Your task to perform on an android device: Open battery settings Image 0: 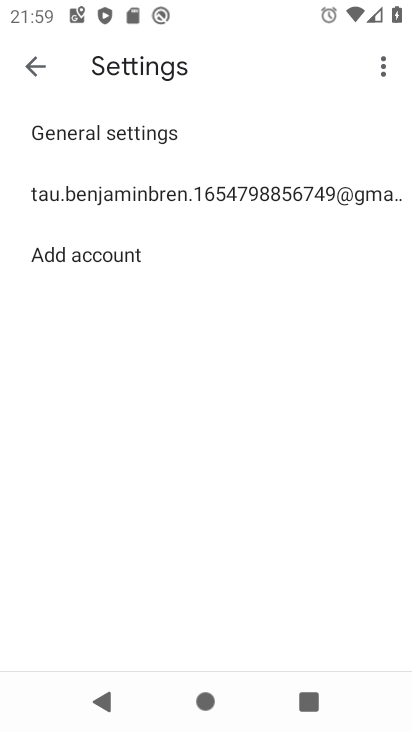
Step 0: press home button
Your task to perform on an android device: Open battery settings Image 1: 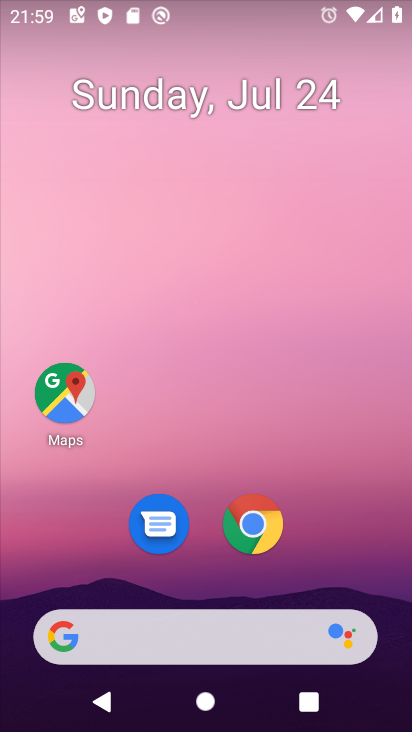
Step 1: drag from (217, 615) to (324, 114)
Your task to perform on an android device: Open battery settings Image 2: 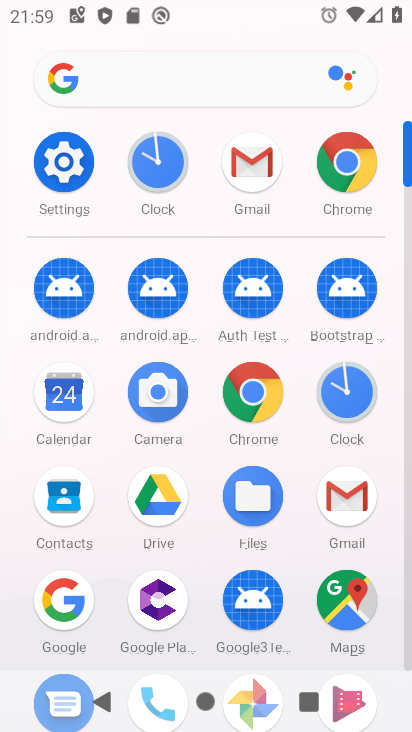
Step 2: click (72, 164)
Your task to perform on an android device: Open battery settings Image 3: 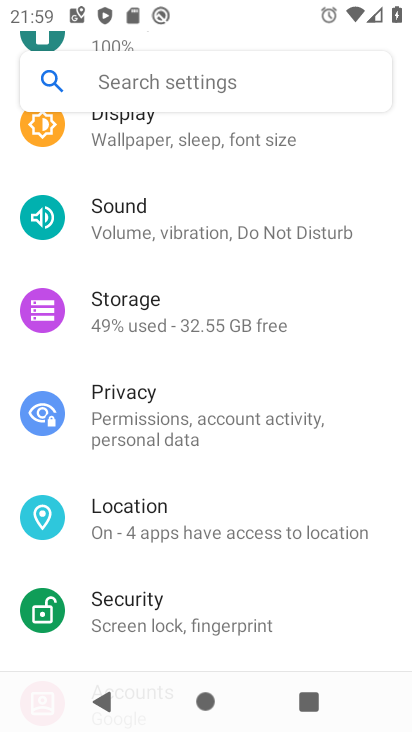
Step 3: drag from (285, 186) to (254, 610)
Your task to perform on an android device: Open battery settings Image 4: 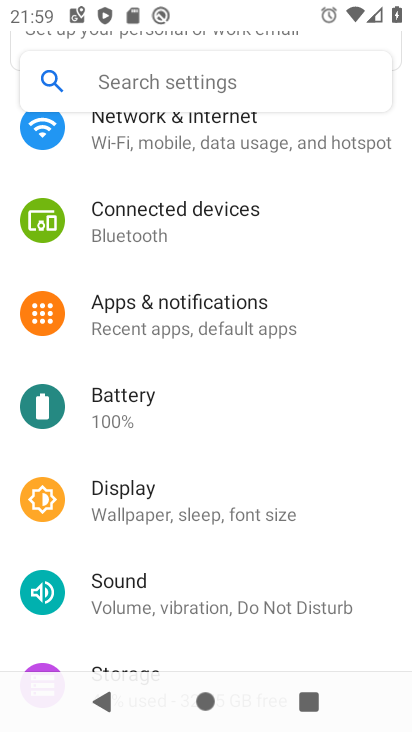
Step 4: click (151, 401)
Your task to perform on an android device: Open battery settings Image 5: 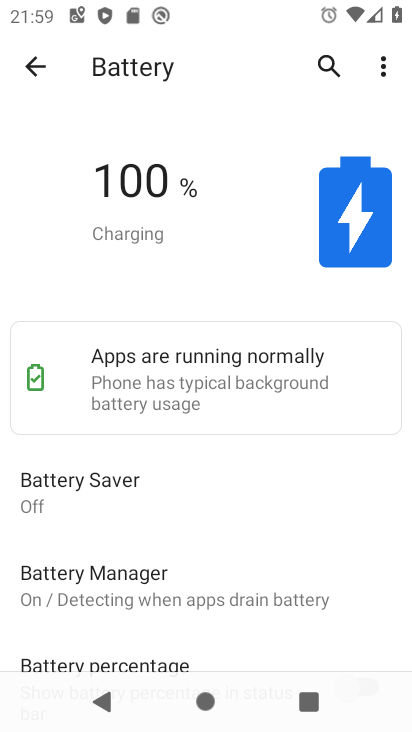
Step 5: task complete